Your task to perform on an android device: turn vacation reply on in the gmail app Image 0: 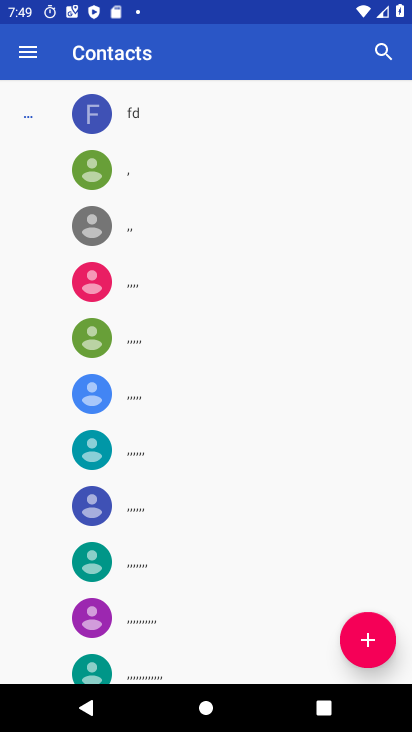
Step 0: press home button
Your task to perform on an android device: turn vacation reply on in the gmail app Image 1: 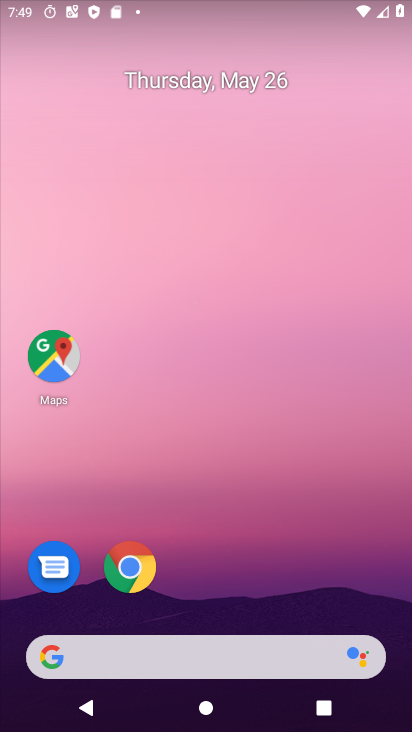
Step 1: drag from (168, 653) to (297, 66)
Your task to perform on an android device: turn vacation reply on in the gmail app Image 2: 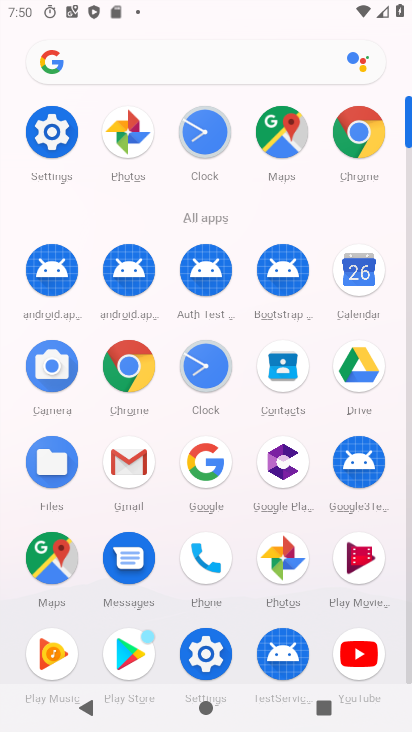
Step 2: click (128, 466)
Your task to perform on an android device: turn vacation reply on in the gmail app Image 3: 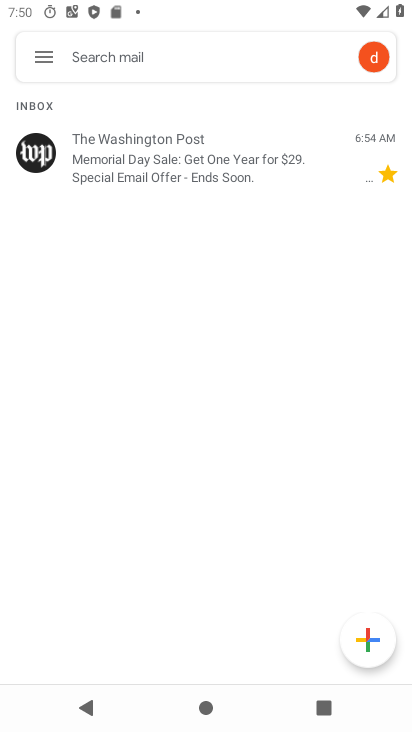
Step 3: click (39, 54)
Your task to perform on an android device: turn vacation reply on in the gmail app Image 4: 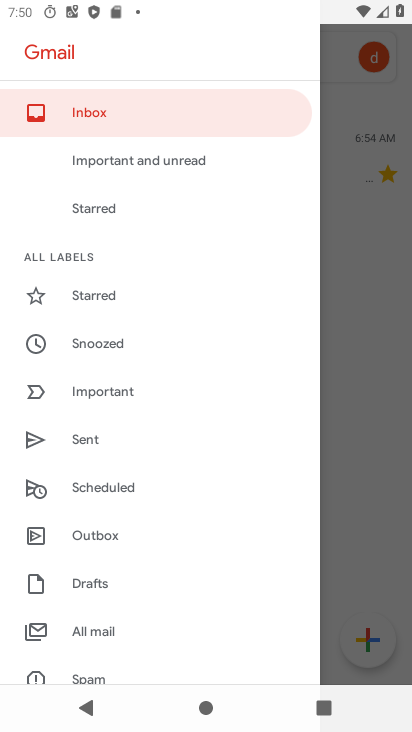
Step 4: drag from (166, 625) to (291, 84)
Your task to perform on an android device: turn vacation reply on in the gmail app Image 5: 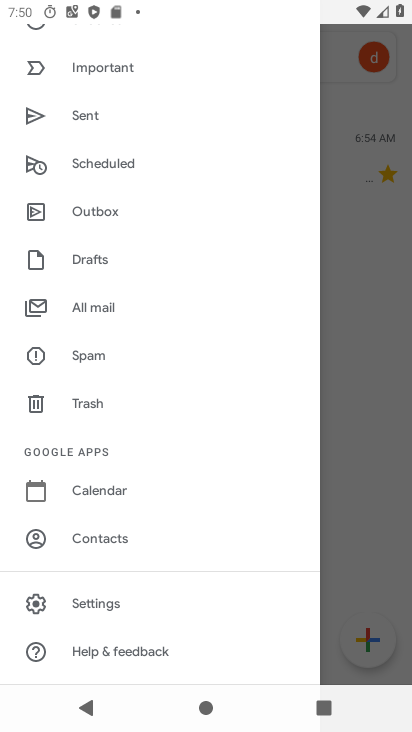
Step 5: click (110, 604)
Your task to perform on an android device: turn vacation reply on in the gmail app Image 6: 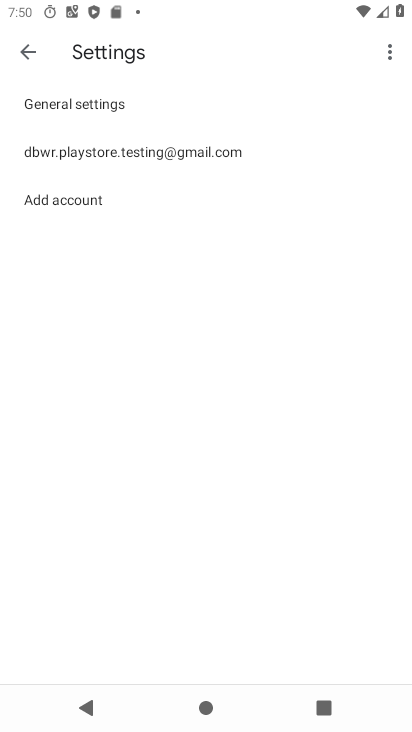
Step 6: click (156, 148)
Your task to perform on an android device: turn vacation reply on in the gmail app Image 7: 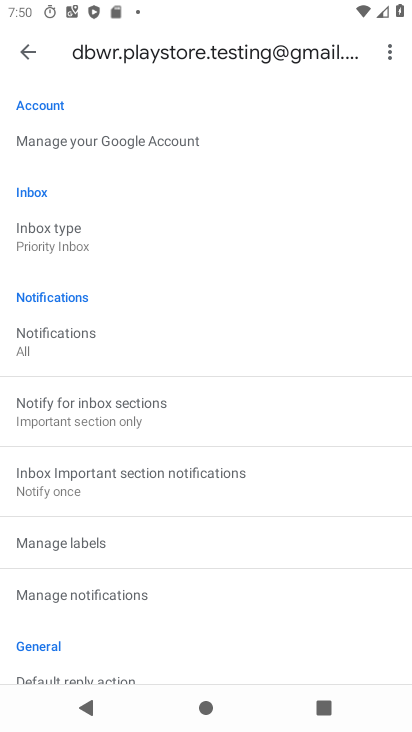
Step 7: drag from (177, 653) to (300, 65)
Your task to perform on an android device: turn vacation reply on in the gmail app Image 8: 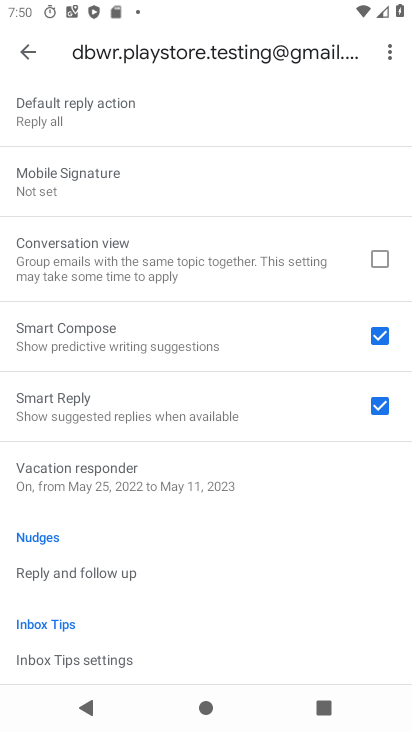
Step 8: click (106, 467)
Your task to perform on an android device: turn vacation reply on in the gmail app Image 9: 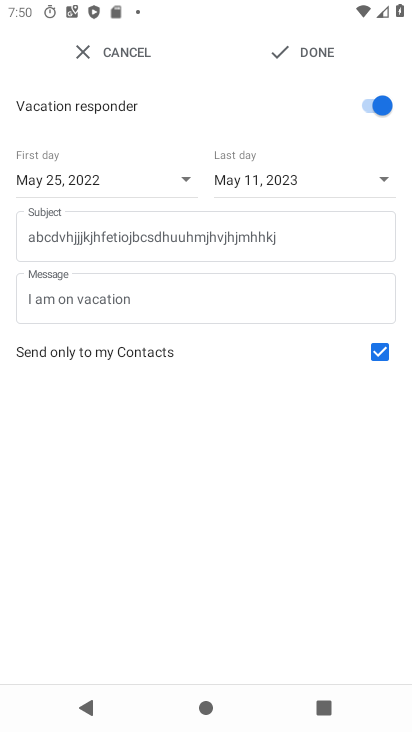
Step 9: task complete